Your task to perform on an android device: install app "Spotify" Image 0: 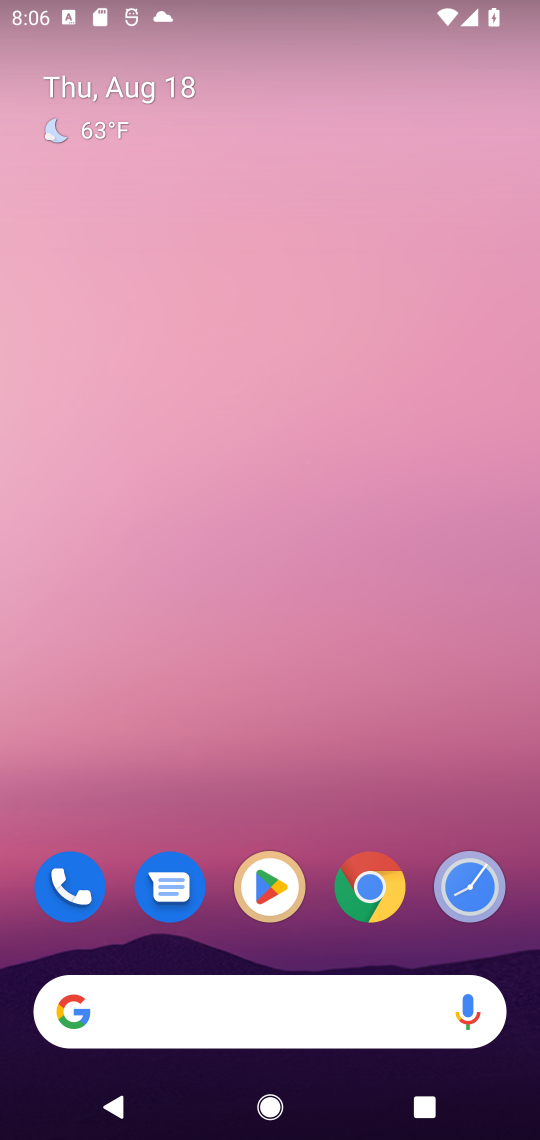
Step 0: drag from (317, 893) to (257, 12)
Your task to perform on an android device: install app "Spotify" Image 1: 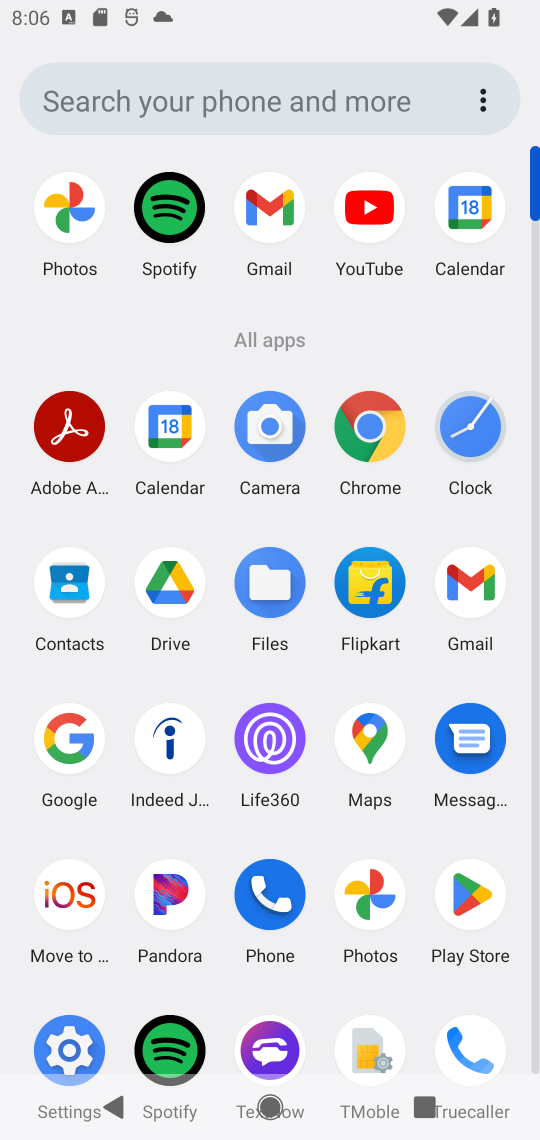
Step 1: drag from (428, 956) to (371, 277)
Your task to perform on an android device: install app "Spotify" Image 2: 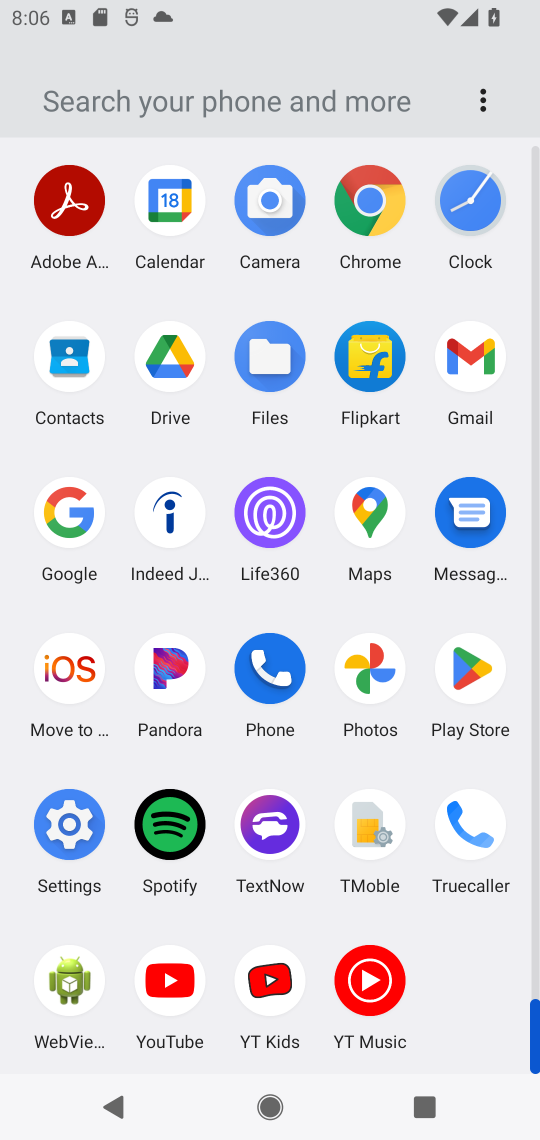
Step 2: click (478, 671)
Your task to perform on an android device: install app "Spotify" Image 3: 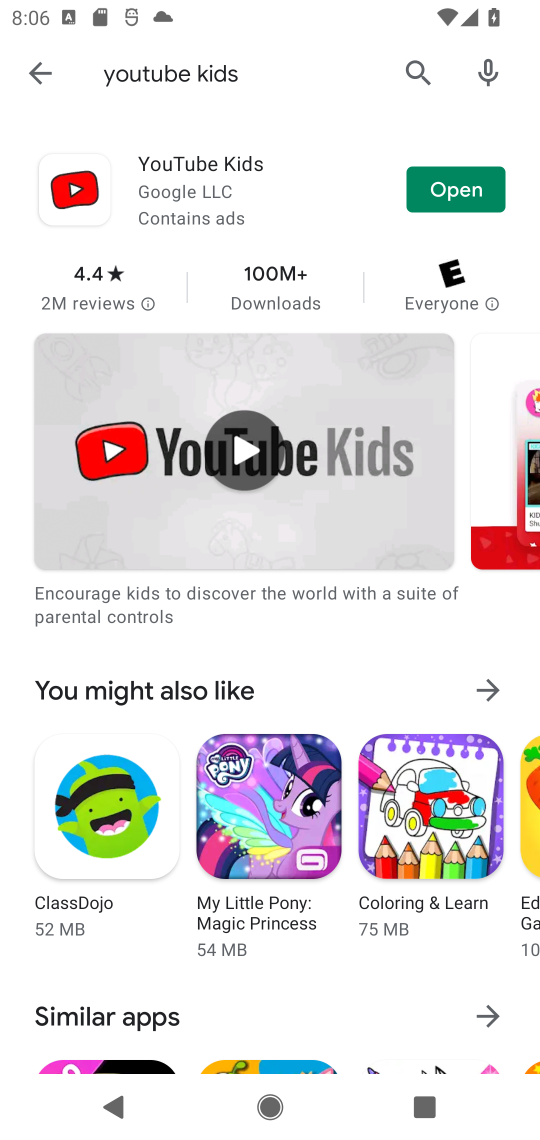
Step 3: click (417, 69)
Your task to perform on an android device: install app "Spotify" Image 4: 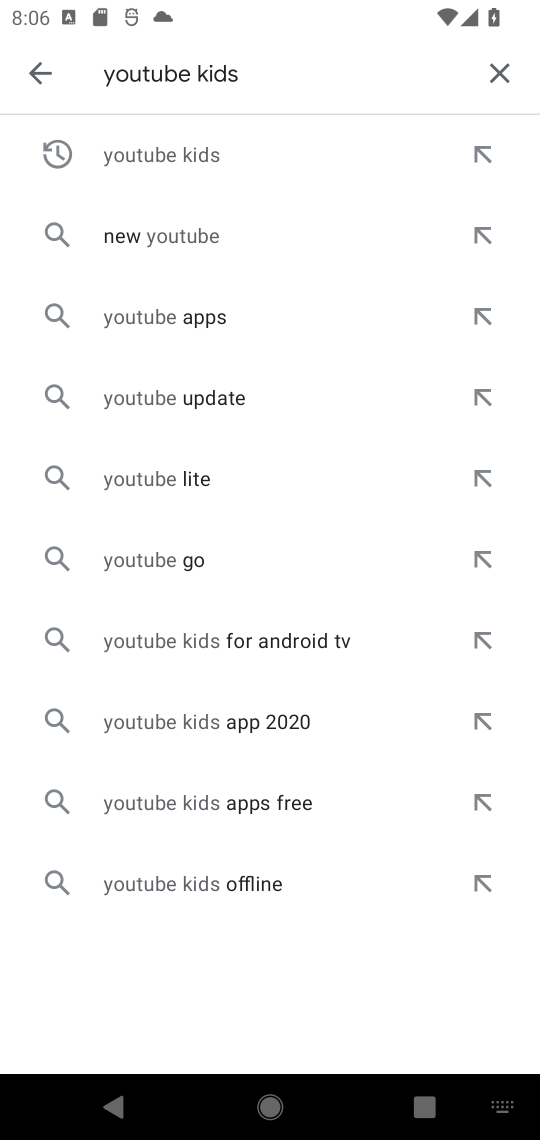
Step 4: click (495, 75)
Your task to perform on an android device: install app "Spotify" Image 5: 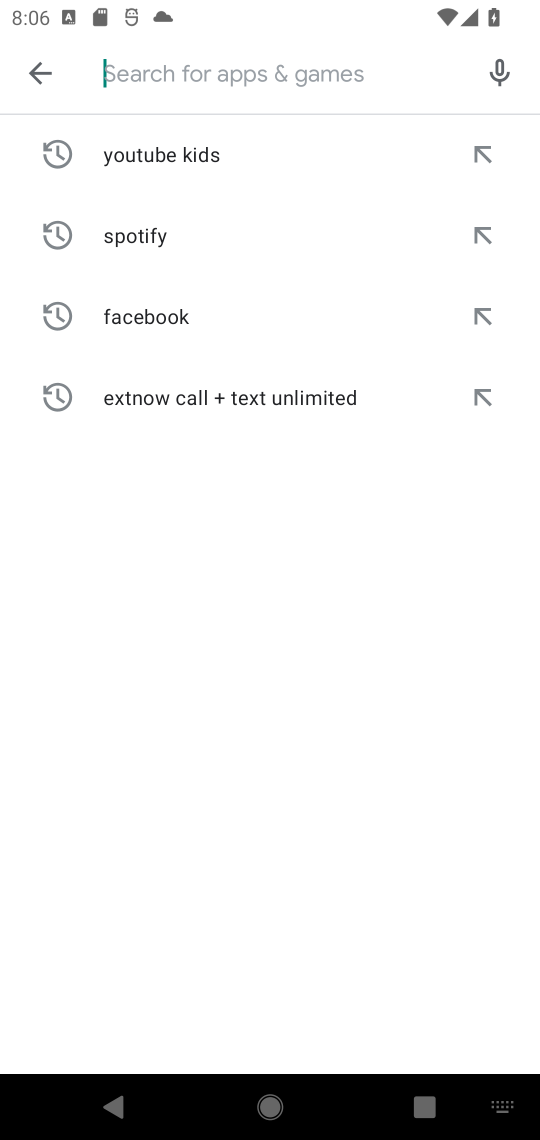
Step 5: type "ouTube Kids"
Your task to perform on an android device: install app "Spotify" Image 6: 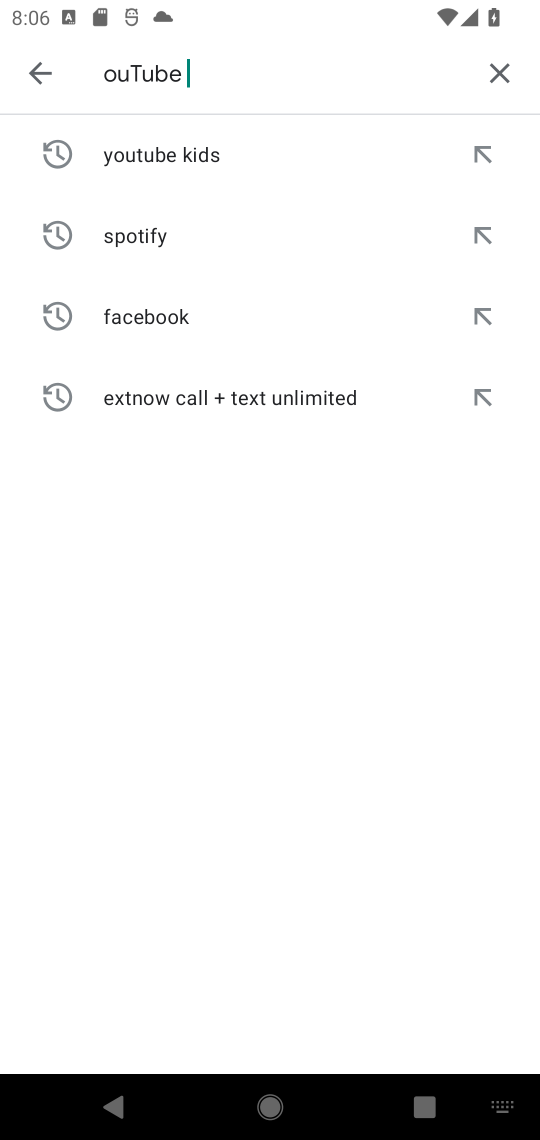
Step 6: type ""
Your task to perform on an android device: install app "Spotify" Image 7: 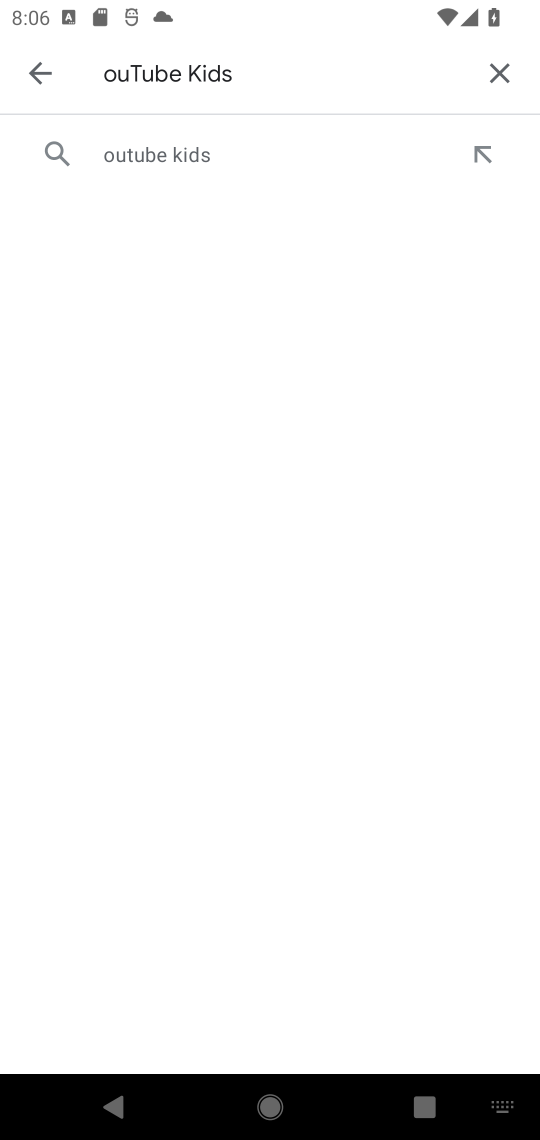
Step 7: click (497, 67)
Your task to perform on an android device: install app "Spotify" Image 8: 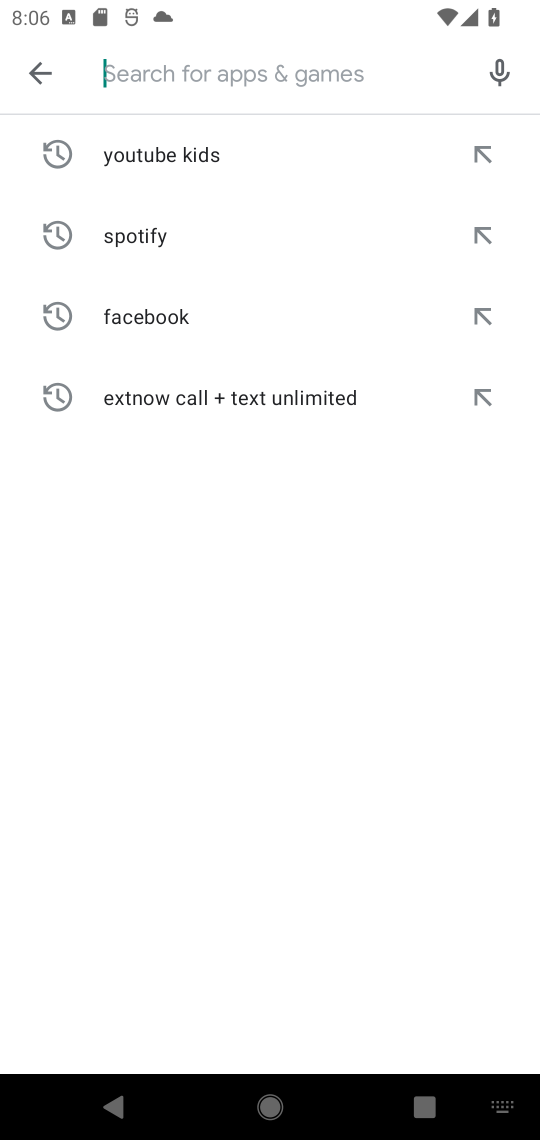
Step 8: type "ouTube Kids"
Your task to perform on an android device: install app "Spotify" Image 9: 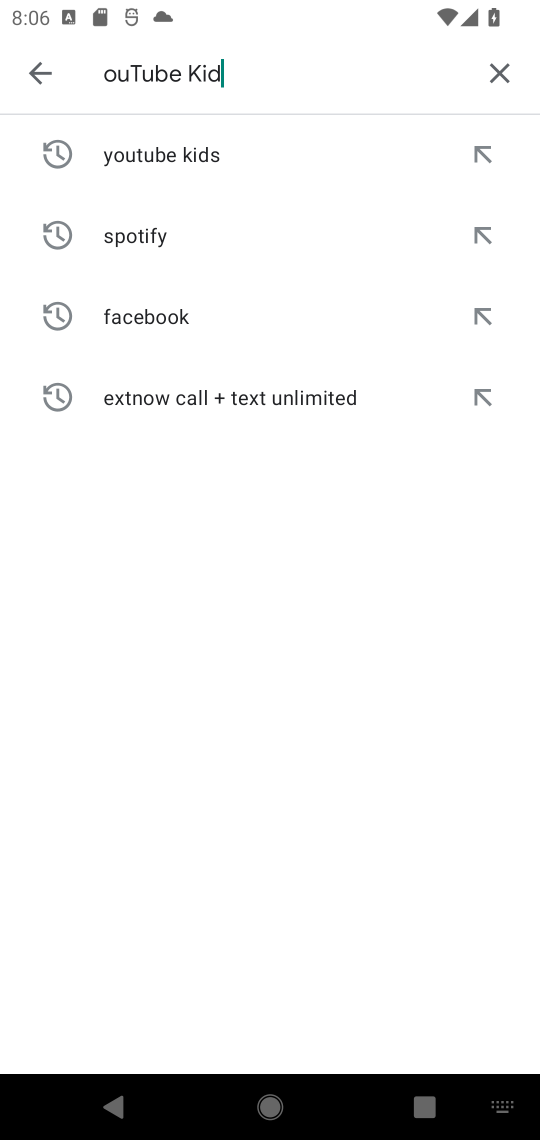
Step 9: type ""
Your task to perform on an android device: install app "Spotify" Image 10: 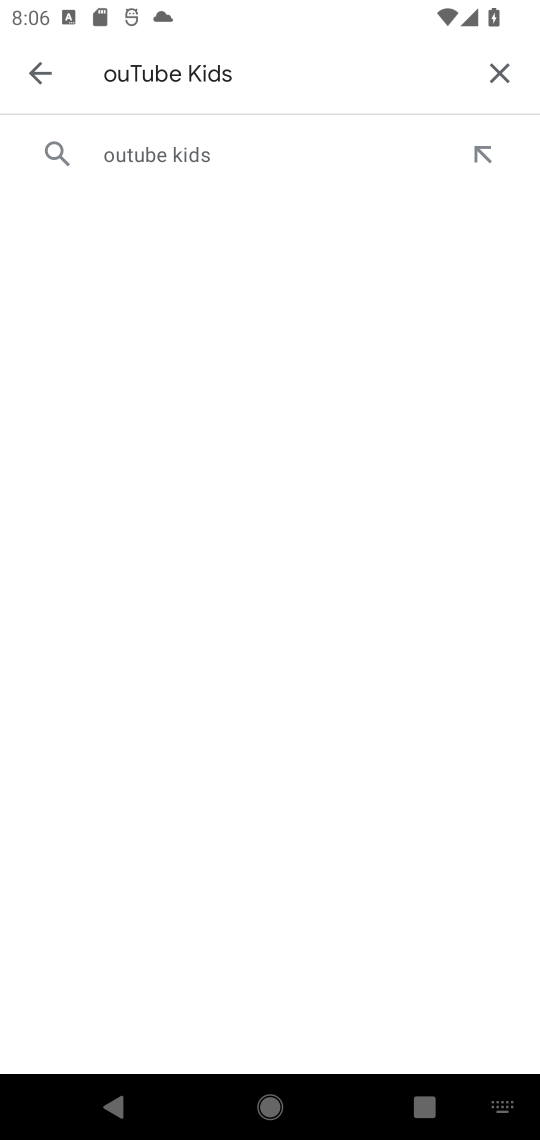
Step 10: click (492, 67)
Your task to perform on an android device: install app "Spotify" Image 11: 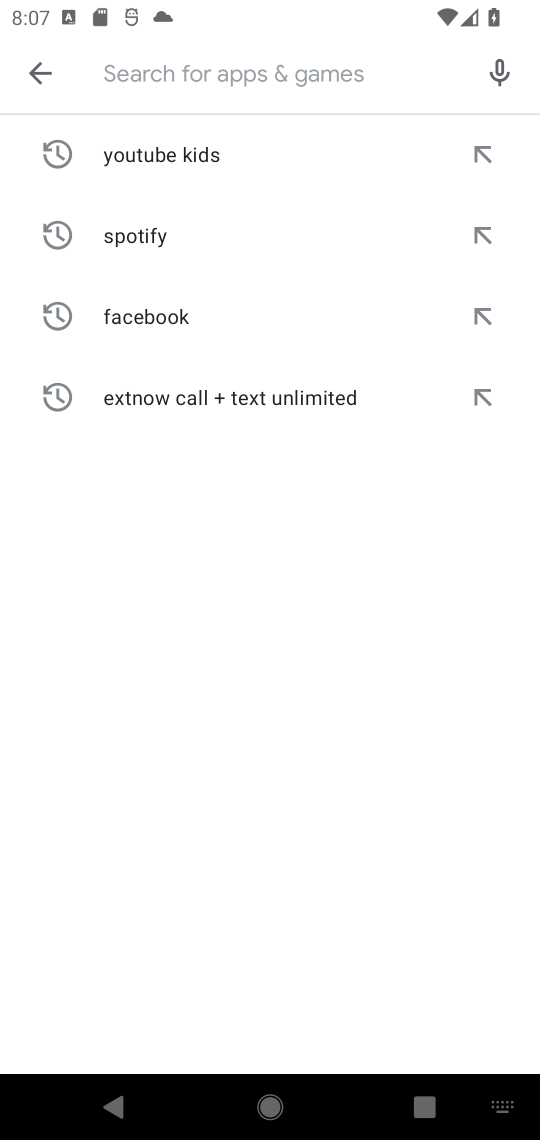
Step 11: type "Spotify"
Your task to perform on an android device: install app "Spotify" Image 12: 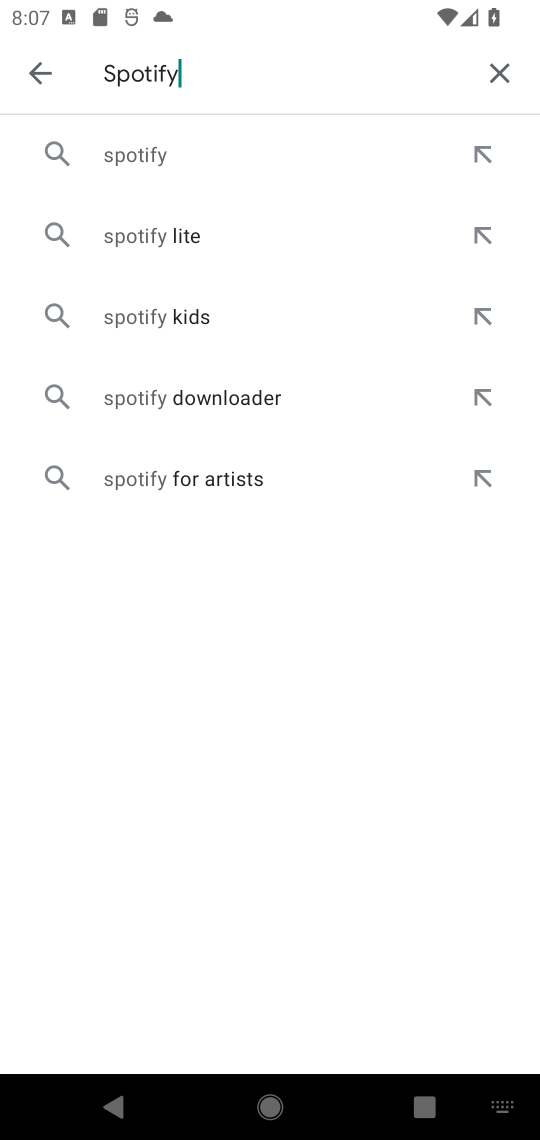
Step 12: click (149, 151)
Your task to perform on an android device: install app "Spotify" Image 13: 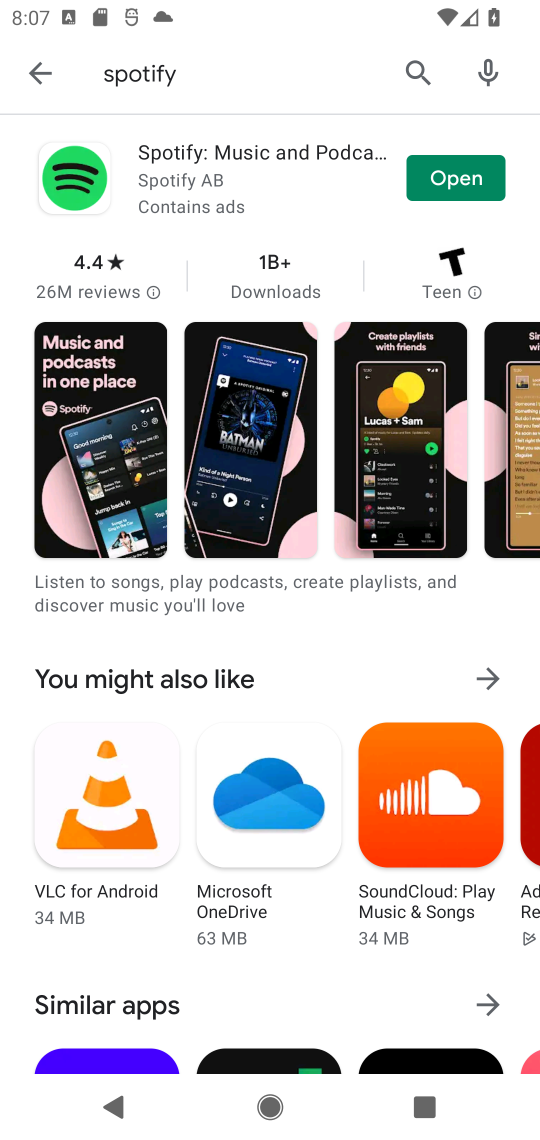
Step 13: task complete